Your task to perform on an android device: turn on airplane mode Image 0: 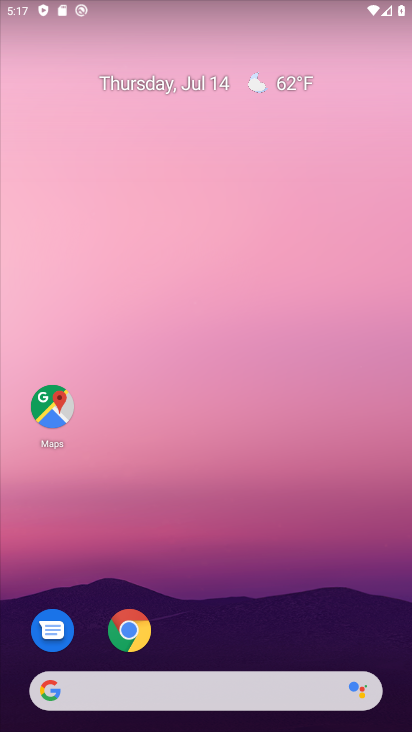
Step 0: drag from (170, 4) to (162, 597)
Your task to perform on an android device: turn on airplane mode Image 1: 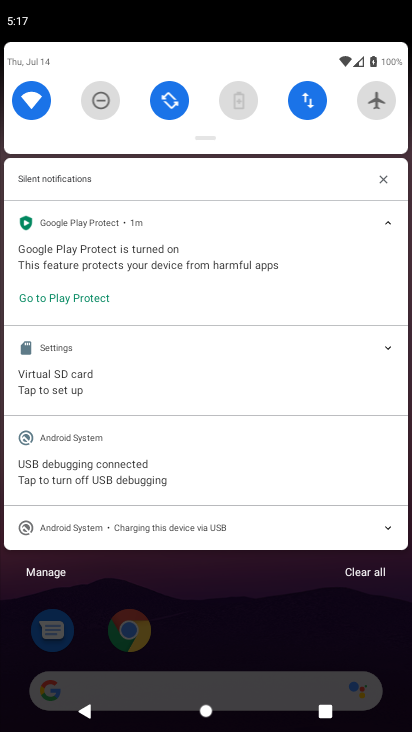
Step 1: click (380, 111)
Your task to perform on an android device: turn on airplane mode Image 2: 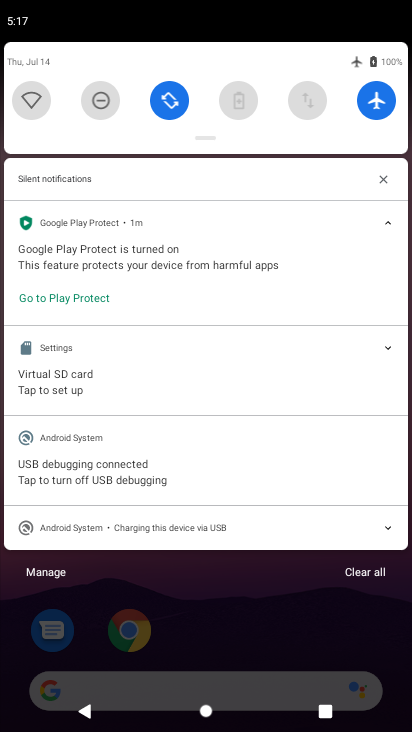
Step 2: task complete